Your task to perform on an android device: remove spam from my inbox in the gmail app Image 0: 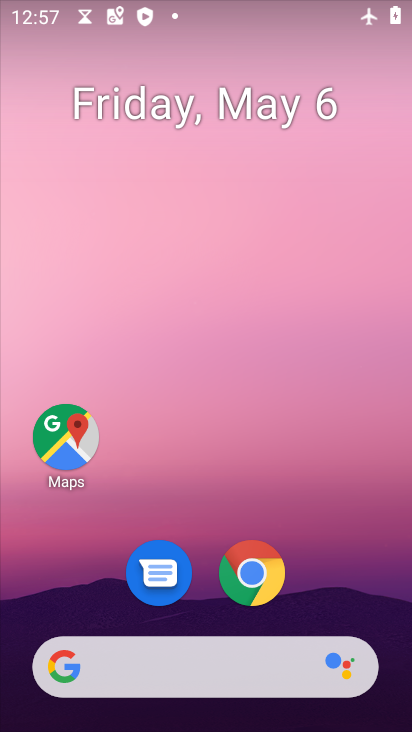
Step 0: drag from (332, 528) to (332, 355)
Your task to perform on an android device: remove spam from my inbox in the gmail app Image 1: 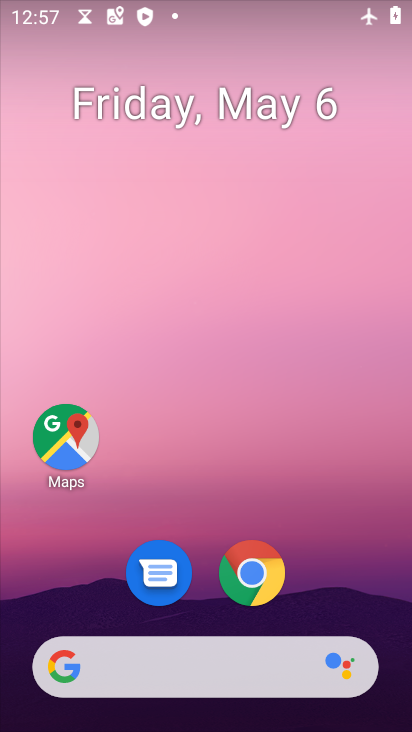
Step 1: drag from (369, 566) to (338, 258)
Your task to perform on an android device: remove spam from my inbox in the gmail app Image 2: 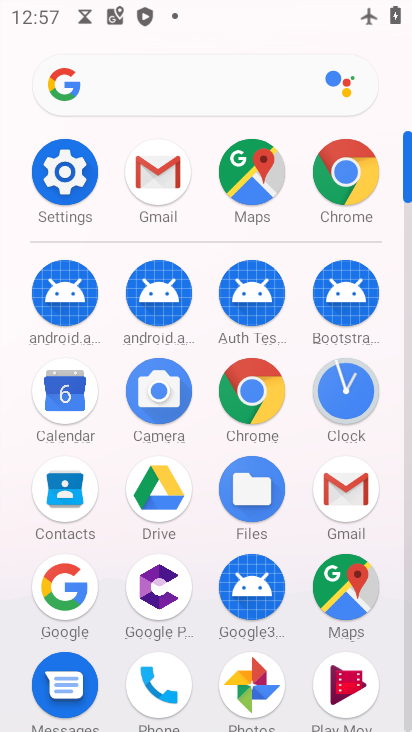
Step 2: click (154, 179)
Your task to perform on an android device: remove spam from my inbox in the gmail app Image 3: 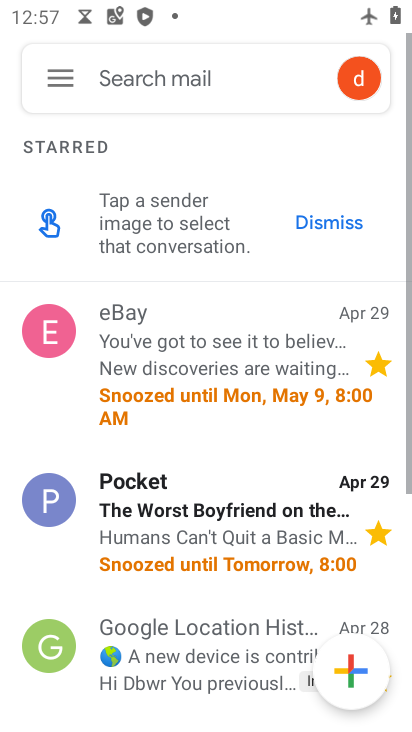
Step 3: click (41, 76)
Your task to perform on an android device: remove spam from my inbox in the gmail app Image 4: 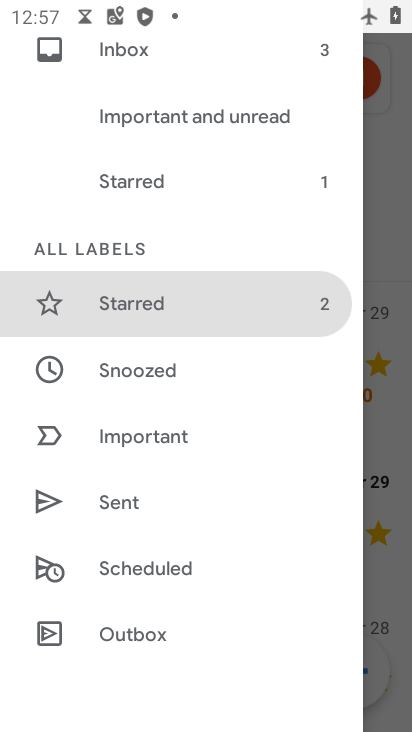
Step 4: drag from (204, 194) to (263, 116)
Your task to perform on an android device: remove spam from my inbox in the gmail app Image 5: 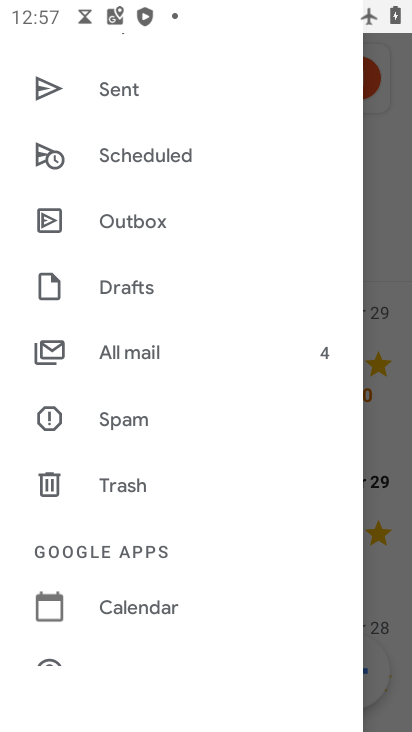
Step 5: click (130, 407)
Your task to perform on an android device: remove spam from my inbox in the gmail app Image 6: 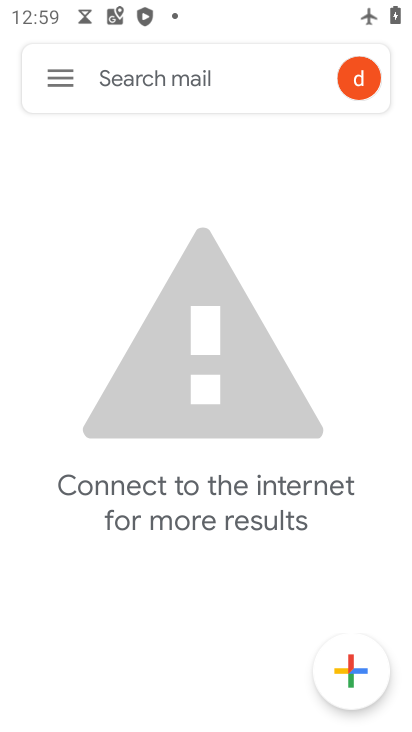
Step 6: task complete